Your task to perform on an android device: See recent photos Image 0: 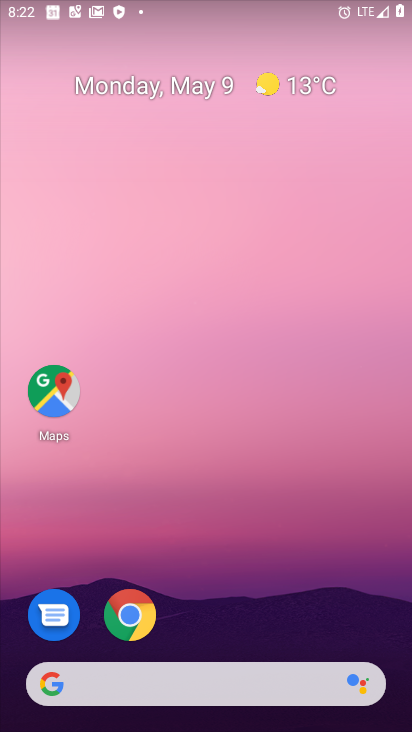
Step 0: drag from (212, 634) to (202, 310)
Your task to perform on an android device: See recent photos Image 1: 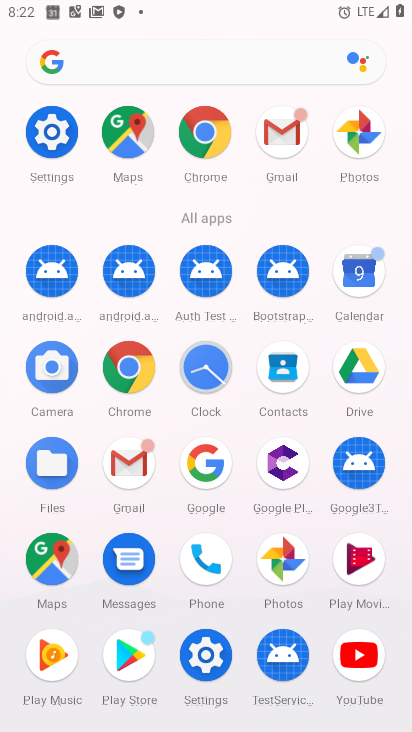
Step 1: click (366, 136)
Your task to perform on an android device: See recent photos Image 2: 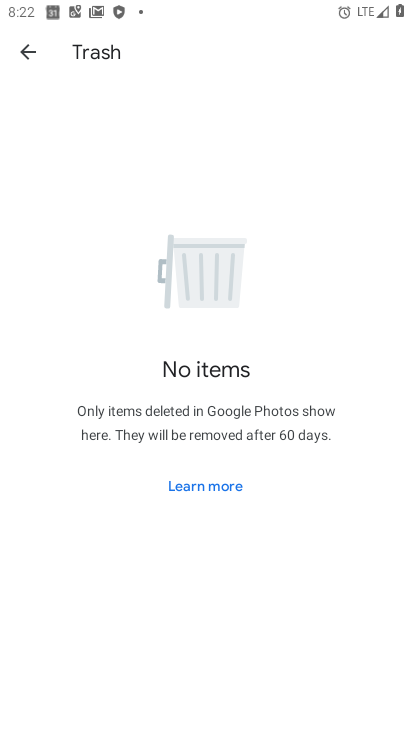
Step 2: click (50, 66)
Your task to perform on an android device: See recent photos Image 3: 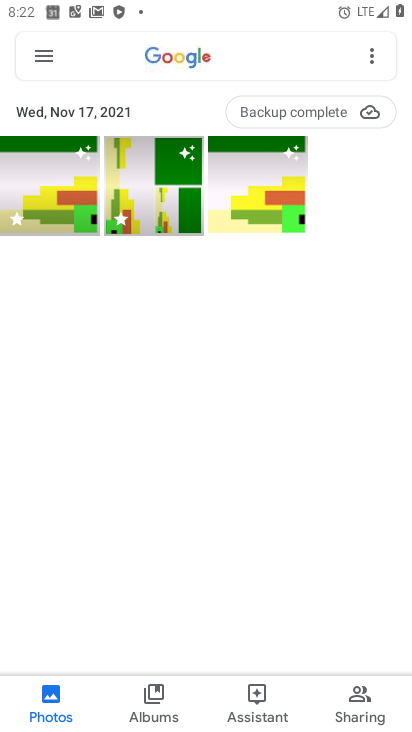
Step 3: task complete